Your task to perform on an android device: Is it going to rain tomorrow? Image 0: 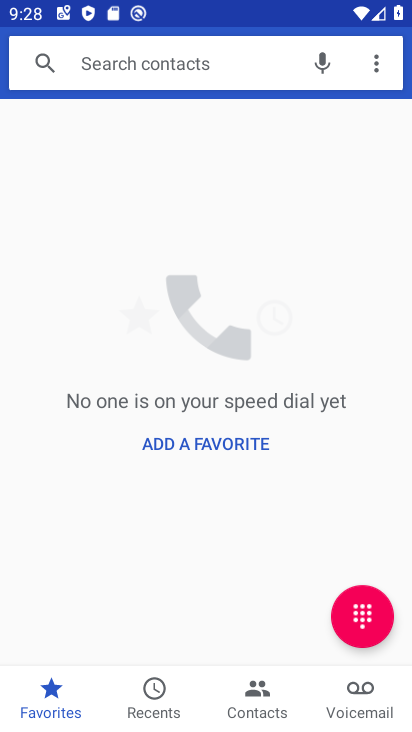
Step 0: press home button
Your task to perform on an android device: Is it going to rain tomorrow? Image 1: 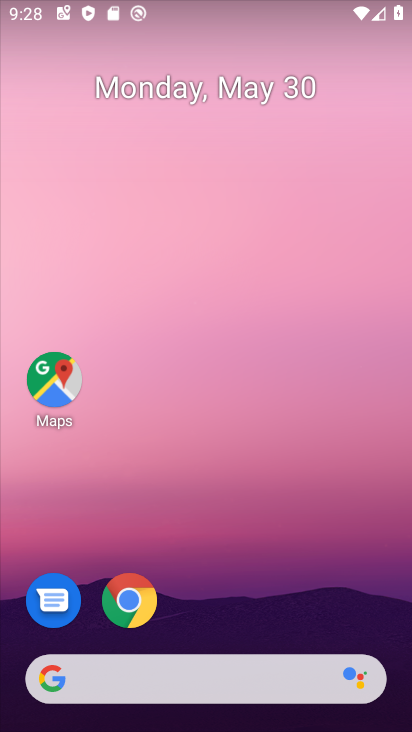
Step 1: click (46, 673)
Your task to perform on an android device: Is it going to rain tomorrow? Image 2: 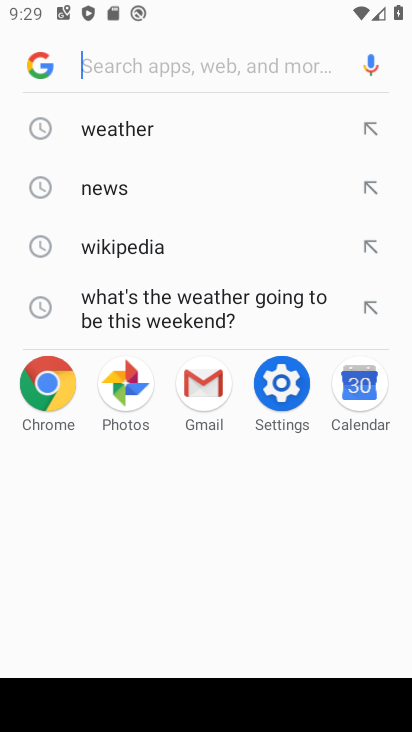
Step 2: type "rain tomorrow?"
Your task to perform on an android device: Is it going to rain tomorrow? Image 3: 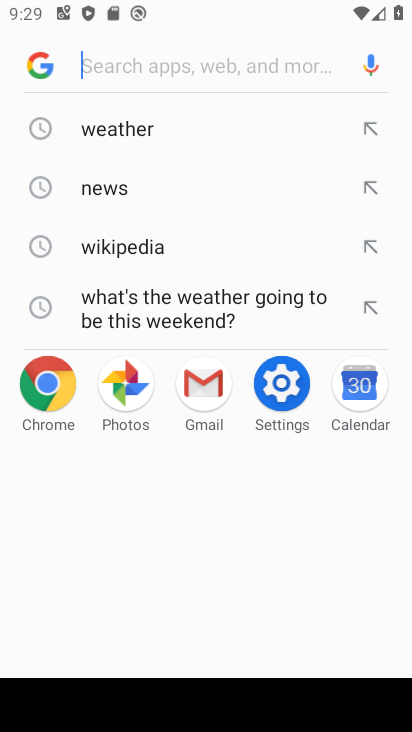
Step 3: click (184, 58)
Your task to perform on an android device: Is it going to rain tomorrow? Image 4: 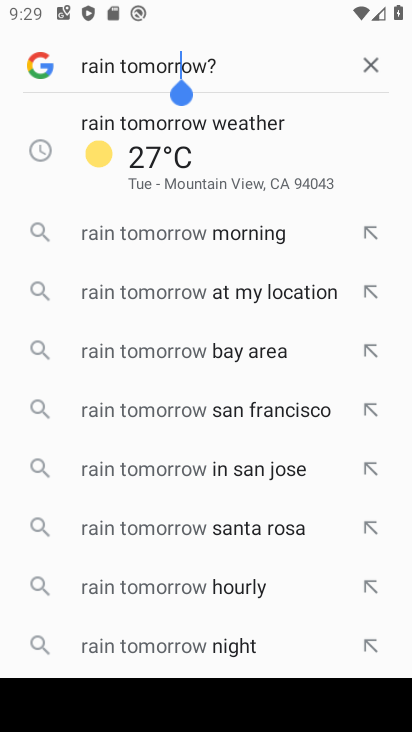
Step 4: click (175, 130)
Your task to perform on an android device: Is it going to rain tomorrow? Image 5: 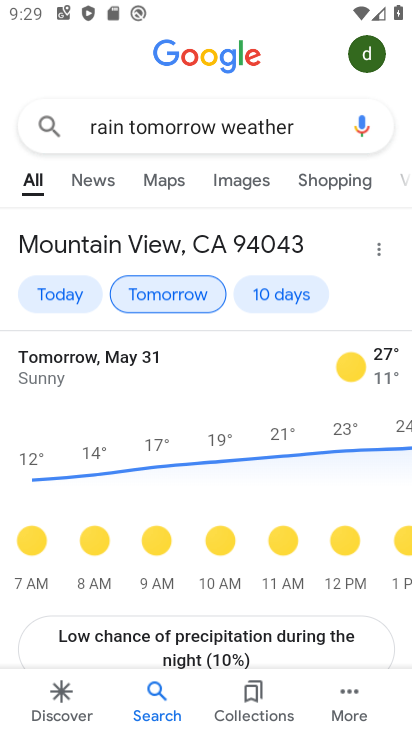
Step 5: task complete